Your task to perform on an android device: Go to Yahoo.com Image 0: 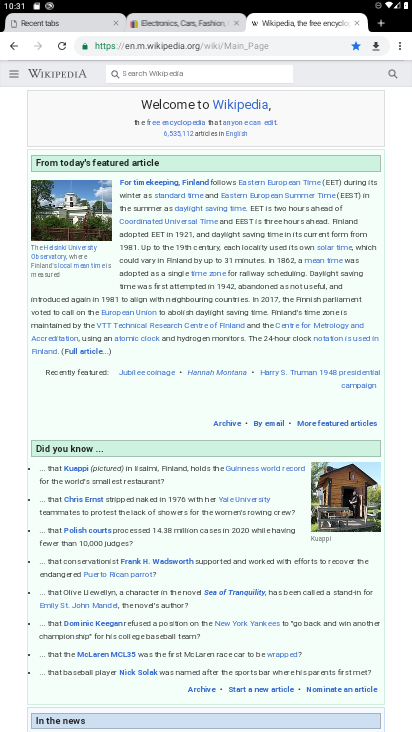
Step 0: press home button
Your task to perform on an android device: Go to Yahoo.com Image 1: 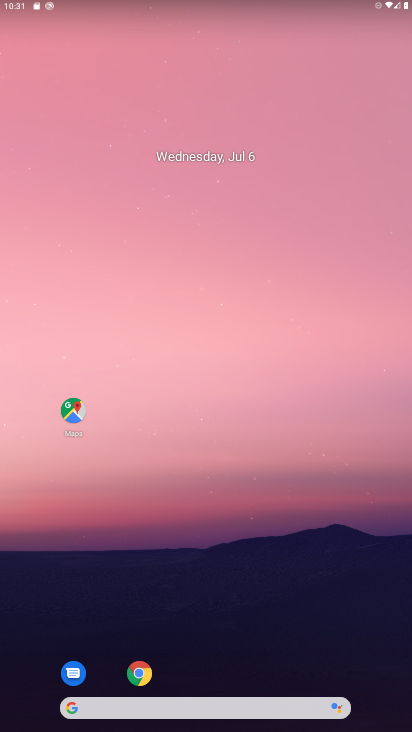
Step 1: click (139, 668)
Your task to perform on an android device: Go to Yahoo.com Image 2: 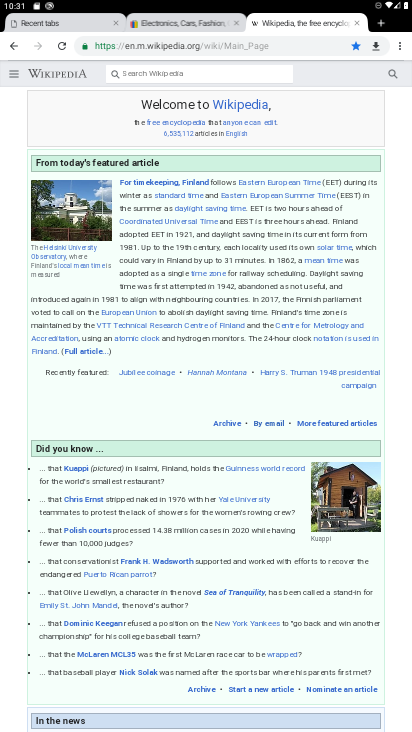
Step 2: click (381, 25)
Your task to perform on an android device: Go to Yahoo.com Image 3: 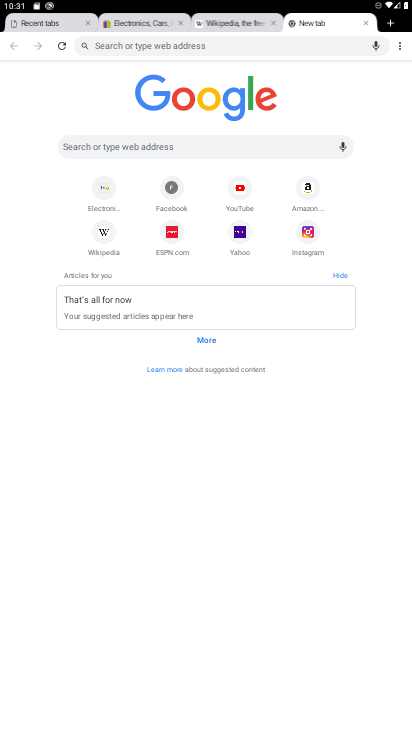
Step 3: click (243, 225)
Your task to perform on an android device: Go to Yahoo.com Image 4: 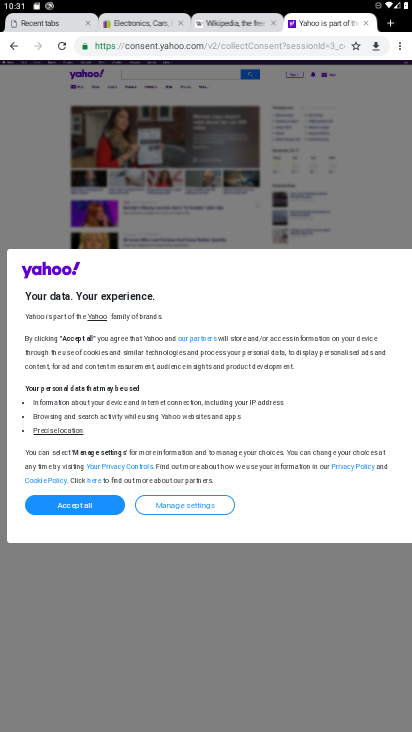
Step 4: task complete